Your task to perform on an android device: Open wifi settings Image 0: 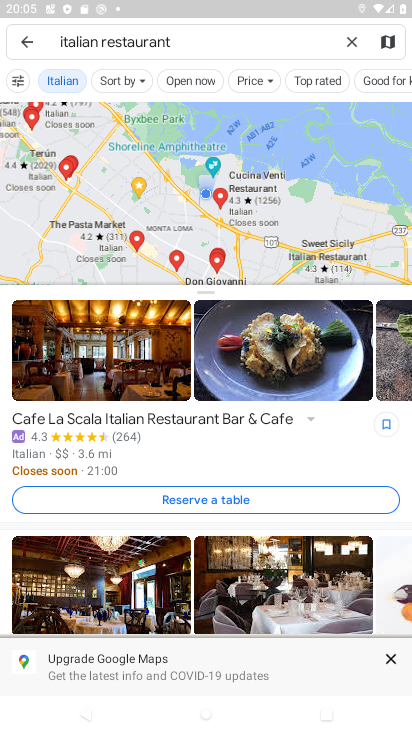
Step 0: press home button
Your task to perform on an android device: Open wifi settings Image 1: 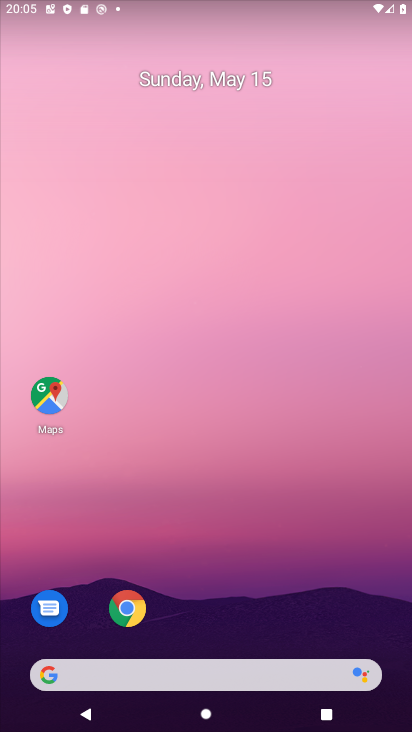
Step 1: drag from (249, 216) to (254, 116)
Your task to perform on an android device: Open wifi settings Image 2: 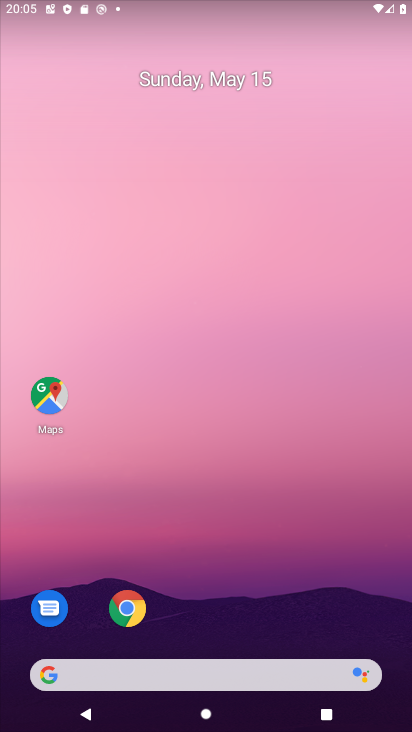
Step 2: drag from (241, 613) to (239, 56)
Your task to perform on an android device: Open wifi settings Image 3: 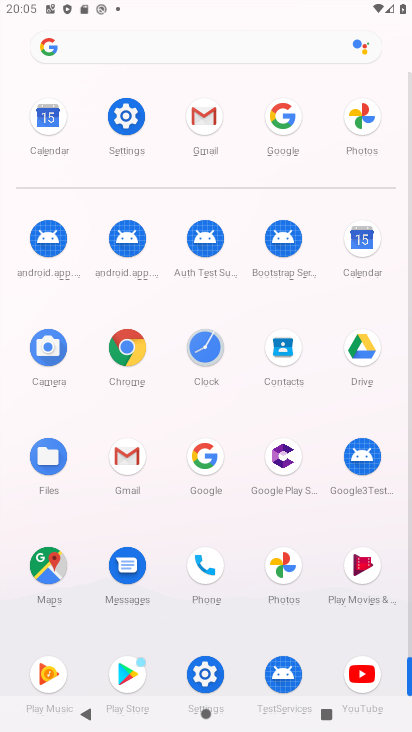
Step 3: click (124, 124)
Your task to perform on an android device: Open wifi settings Image 4: 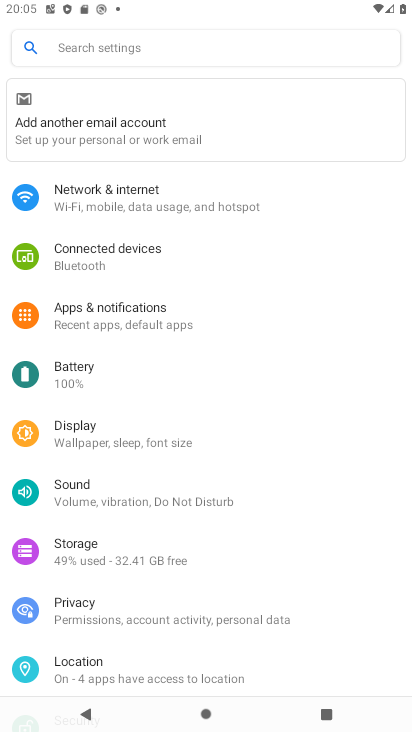
Step 4: click (91, 193)
Your task to perform on an android device: Open wifi settings Image 5: 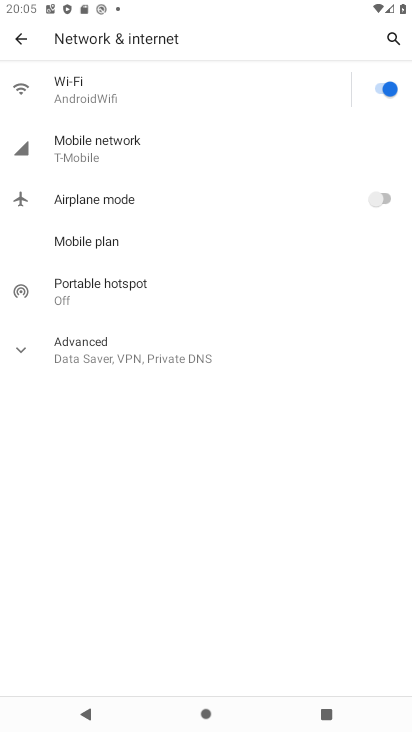
Step 5: click (135, 93)
Your task to perform on an android device: Open wifi settings Image 6: 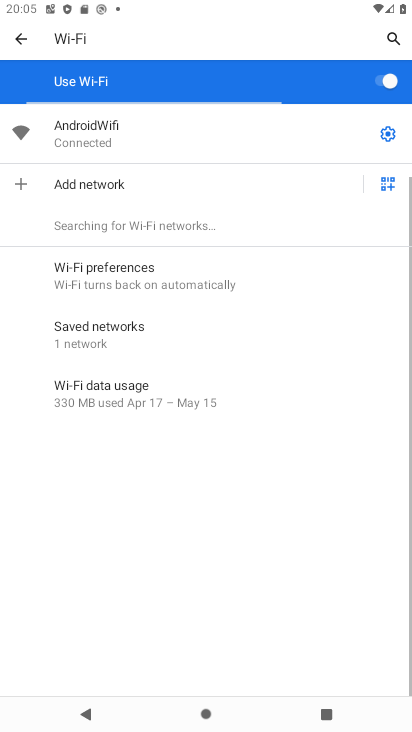
Step 6: click (375, 128)
Your task to perform on an android device: Open wifi settings Image 7: 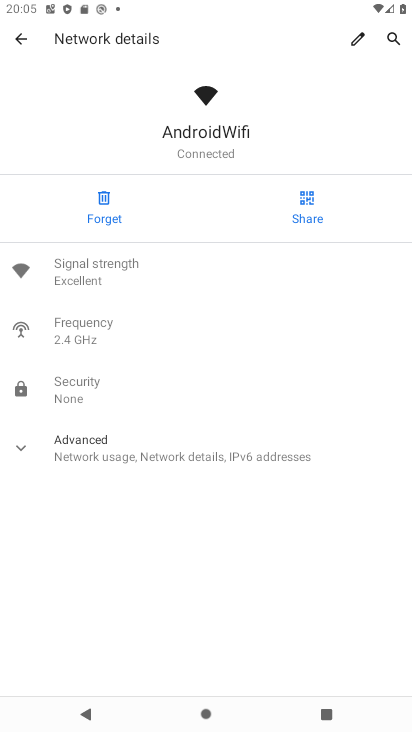
Step 7: task complete